Your task to perform on an android device: Go to accessibility settings Image 0: 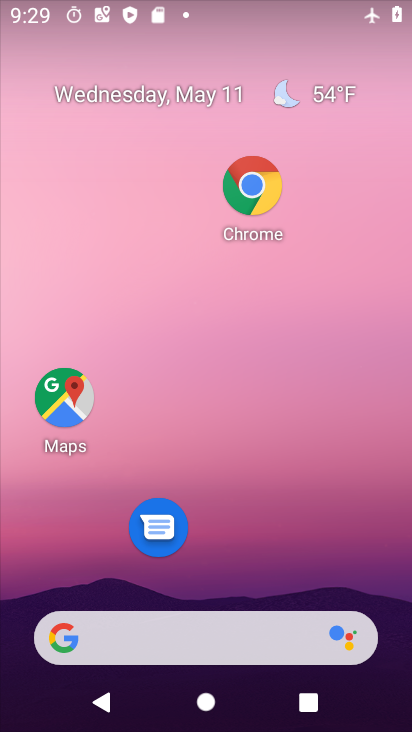
Step 0: drag from (258, 539) to (206, 78)
Your task to perform on an android device: Go to accessibility settings Image 1: 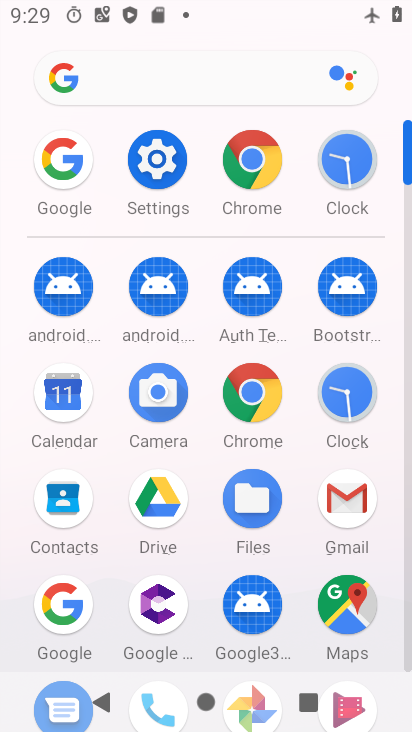
Step 1: click (158, 165)
Your task to perform on an android device: Go to accessibility settings Image 2: 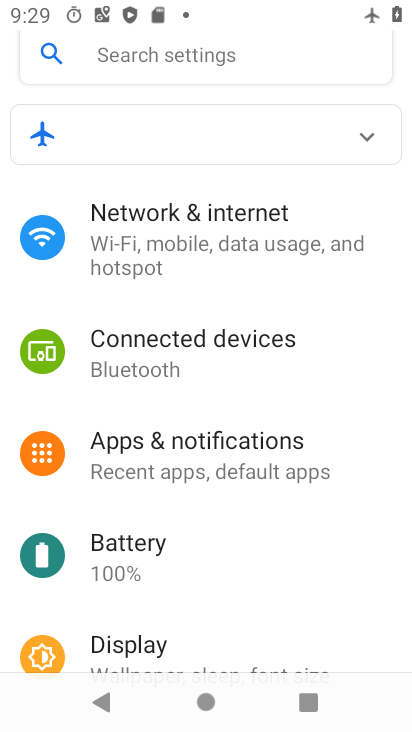
Step 2: drag from (248, 584) to (263, 24)
Your task to perform on an android device: Go to accessibility settings Image 3: 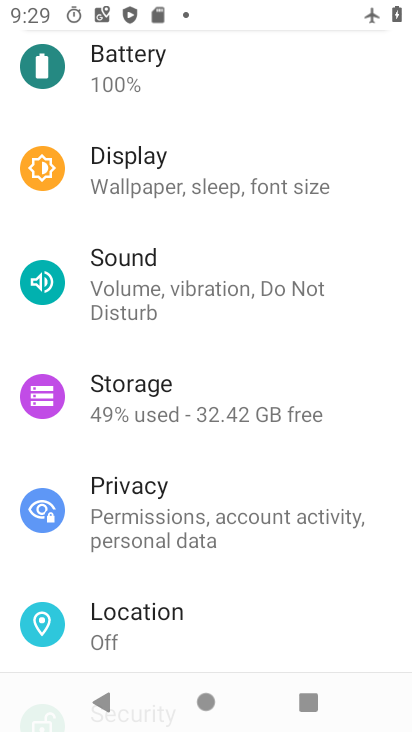
Step 3: drag from (215, 529) to (206, 16)
Your task to perform on an android device: Go to accessibility settings Image 4: 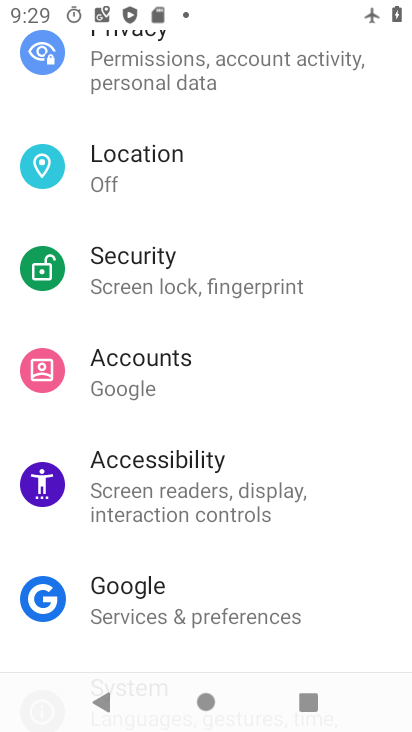
Step 4: click (157, 497)
Your task to perform on an android device: Go to accessibility settings Image 5: 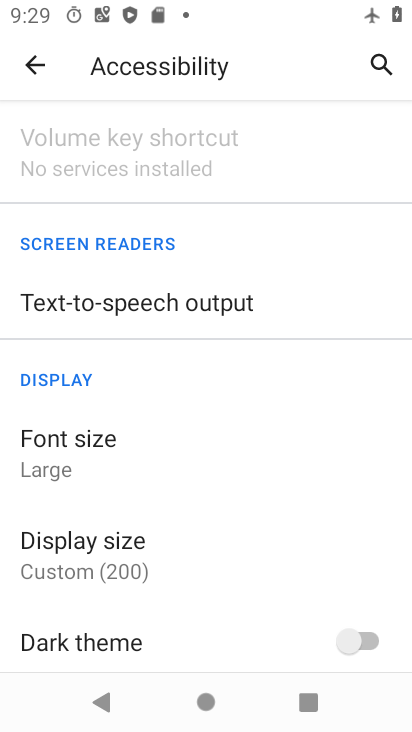
Step 5: task complete